Your task to perform on an android device: empty trash in the gmail app Image 0: 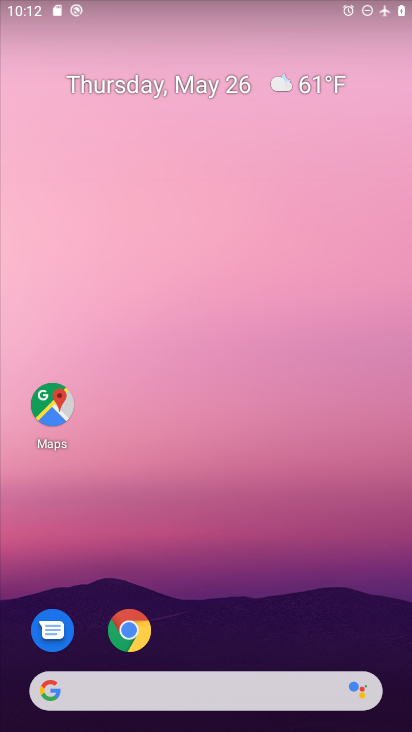
Step 0: drag from (197, 639) to (170, 160)
Your task to perform on an android device: empty trash in the gmail app Image 1: 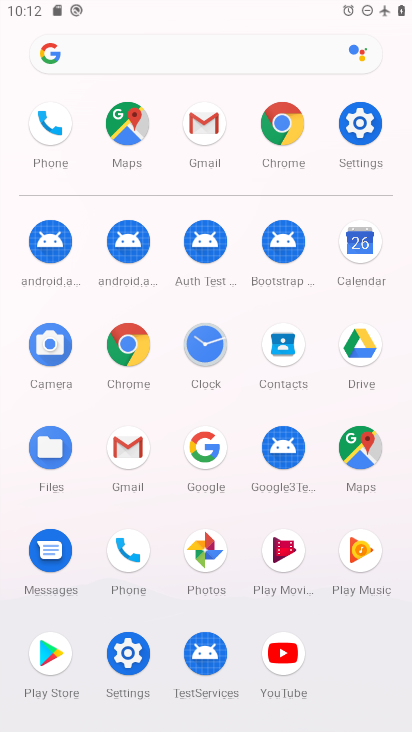
Step 1: click (128, 447)
Your task to perform on an android device: empty trash in the gmail app Image 2: 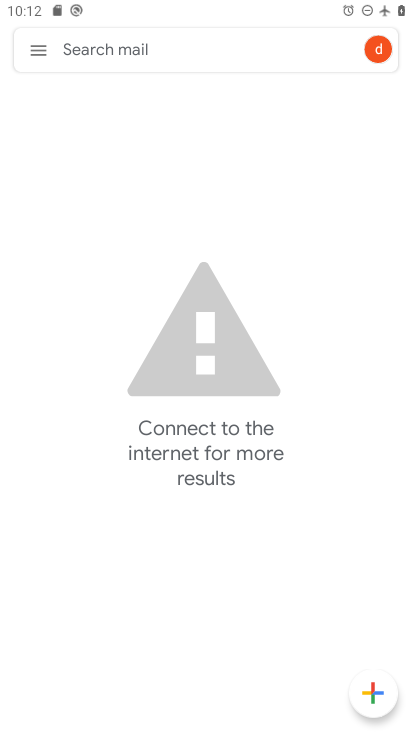
Step 2: click (27, 50)
Your task to perform on an android device: empty trash in the gmail app Image 3: 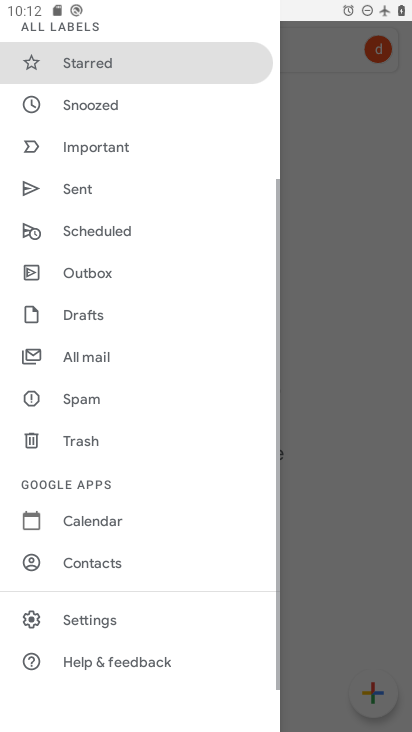
Step 3: click (83, 433)
Your task to perform on an android device: empty trash in the gmail app Image 4: 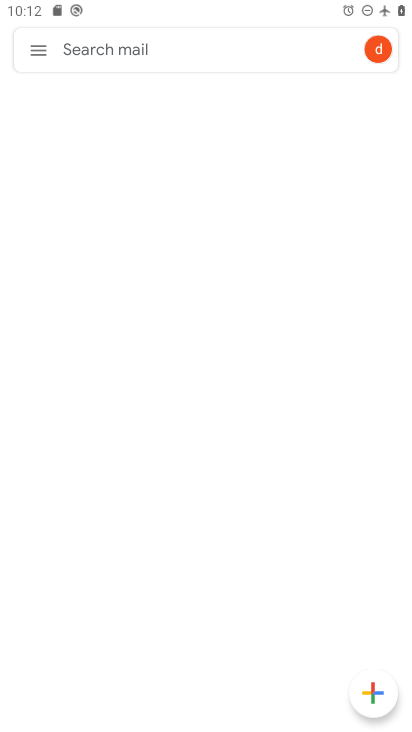
Step 4: task complete